Your task to perform on an android device: Open maps Image 0: 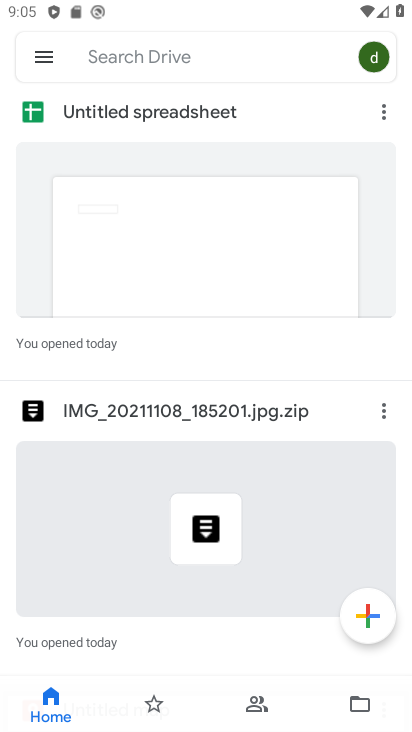
Step 0: press home button
Your task to perform on an android device: Open maps Image 1: 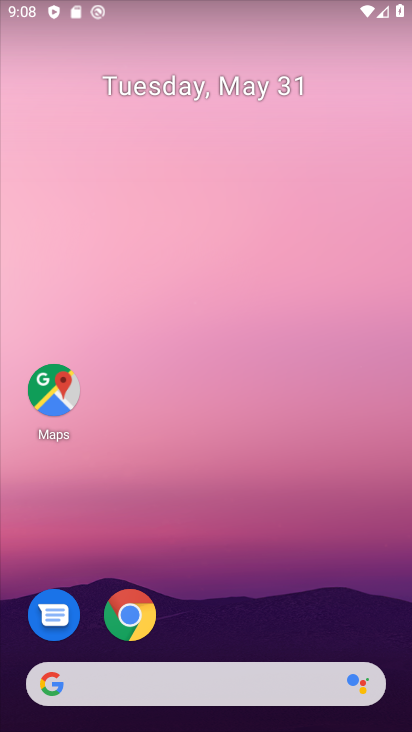
Step 1: click (58, 384)
Your task to perform on an android device: Open maps Image 2: 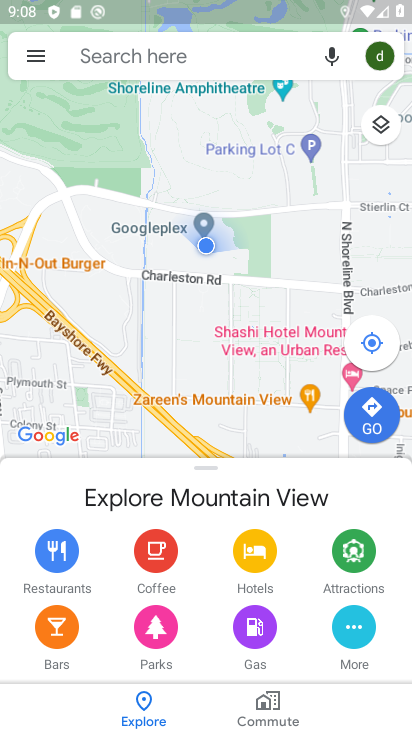
Step 2: task complete